Your task to perform on an android device: Search for sushi restaurants on Maps Image 0: 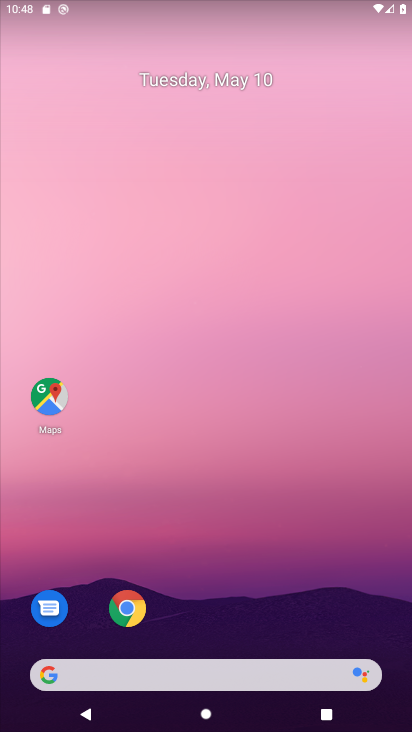
Step 0: drag from (203, 669) to (188, 86)
Your task to perform on an android device: Search for sushi restaurants on Maps Image 1: 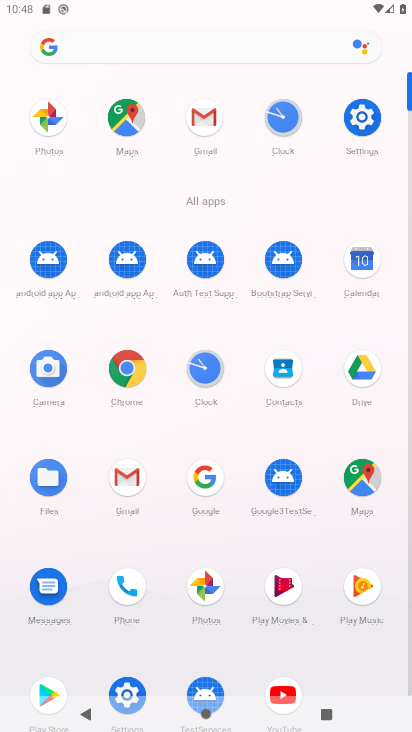
Step 1: click (352, 498)
Your task to perform on an android device: Search for sushi restaurants on Maps Image 2: 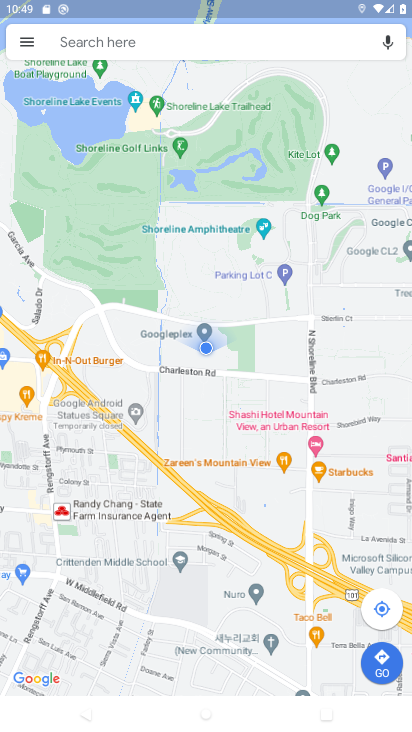
Step 2: click (172, 37)
Your task to perform on an android device: Search for sushi restaurants on Maps Image 3: 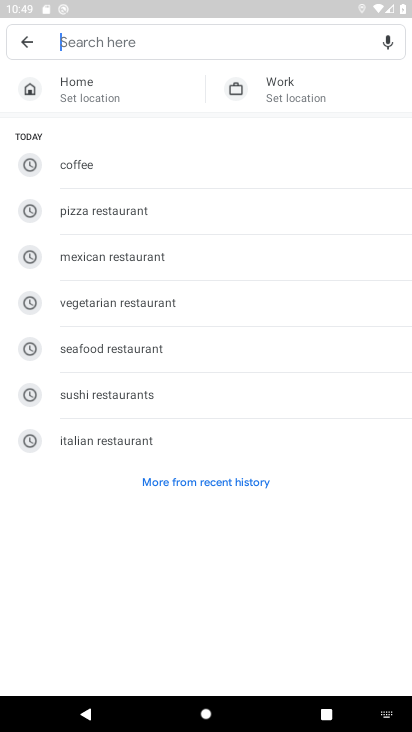
Step 3: click (136, 398)
Your task to perform on an android device: Search for sushi restaurants on Maps Image 4: 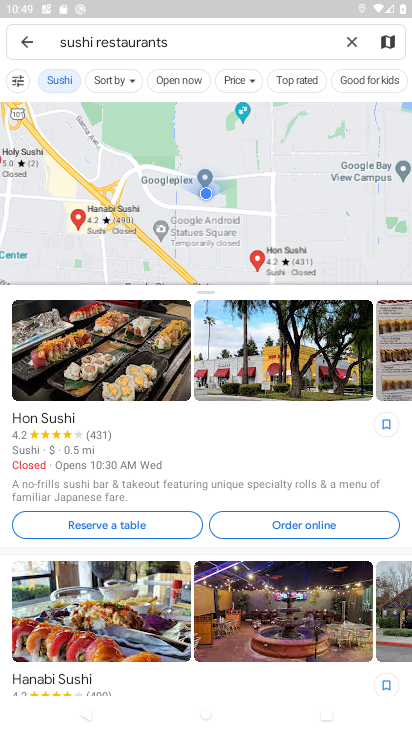
Step 4: task complete